Your task to perform on an android device: open app "Speedtest by Ookla" Image 0: 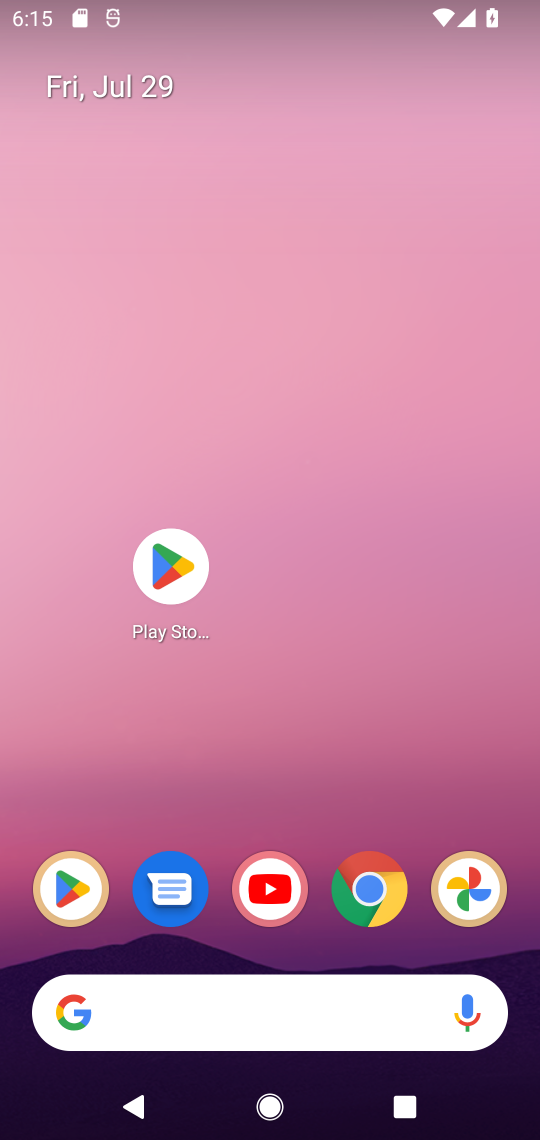
Step 0: press home button
Your task to perform on an android device: open app "Speedtest by Ookla" Image 1: 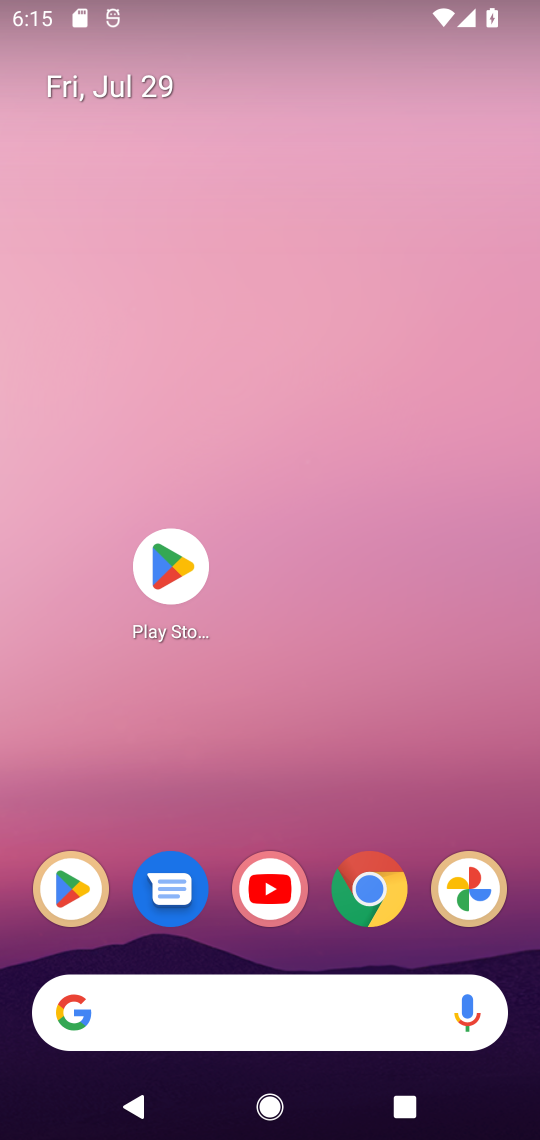
Step 1: click (171, 576)
Your task to perform on an android device: open app "Speedtest by Ookla" Image 2: 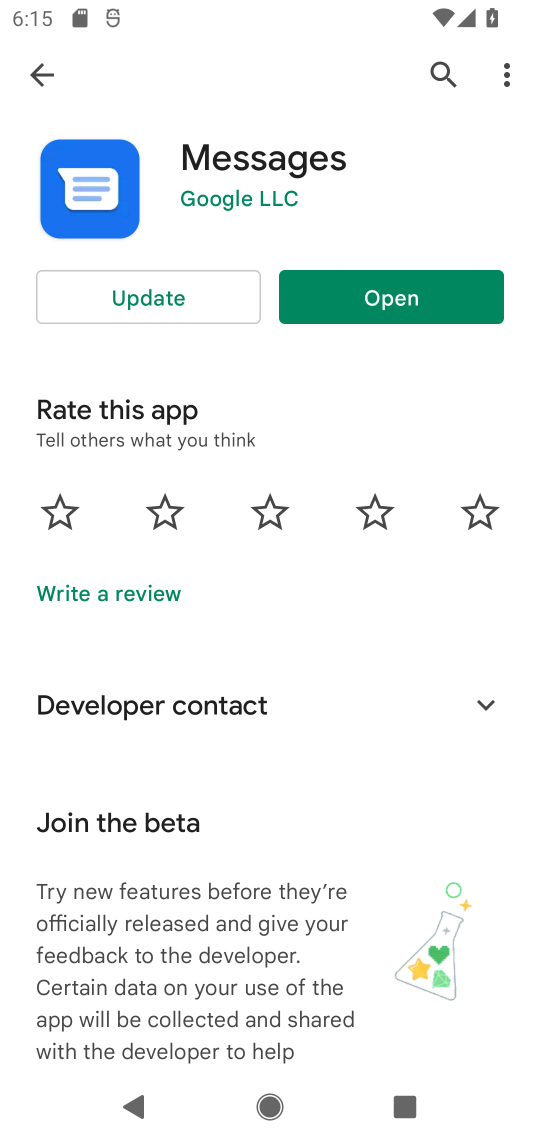
Step 2: click (444, 73)
Your task to perform on an android device: open app "Speedtest by Ookla" Image 3: 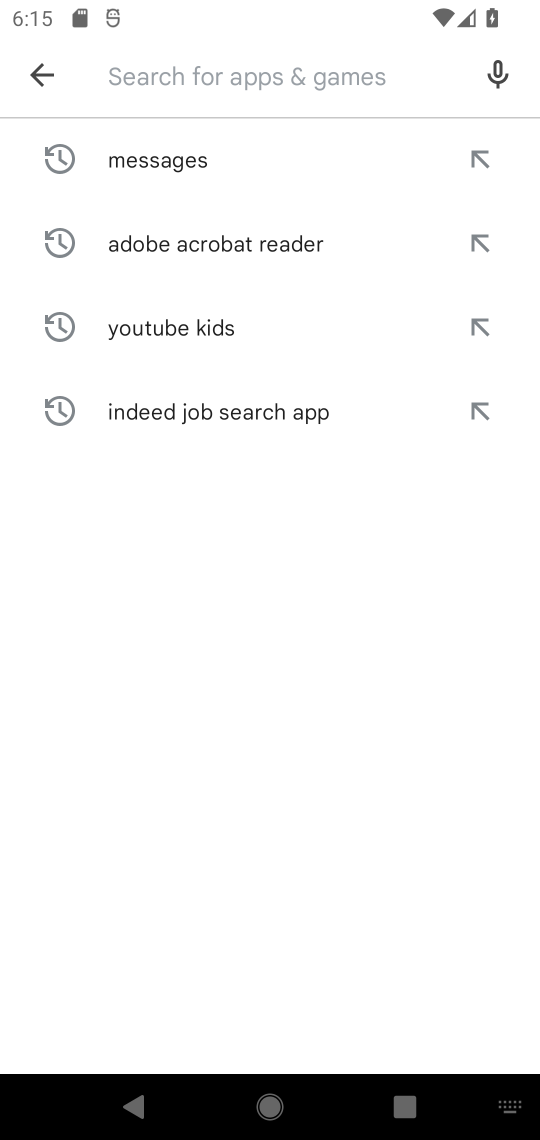
Step 3: type "Speedtest by Ookla"
Your task to perform on an android device: open app "Speedtest by Ookla" Image 4: 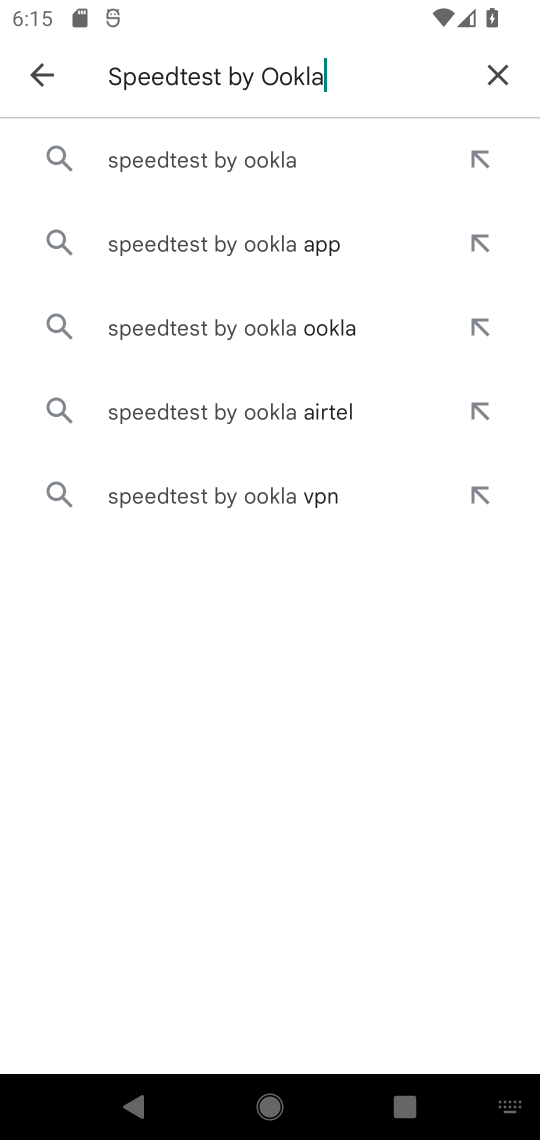
Step 4: click (263, 155)
Your task to perform on an android device: open app "Speedtest by Ookla" Image 5: 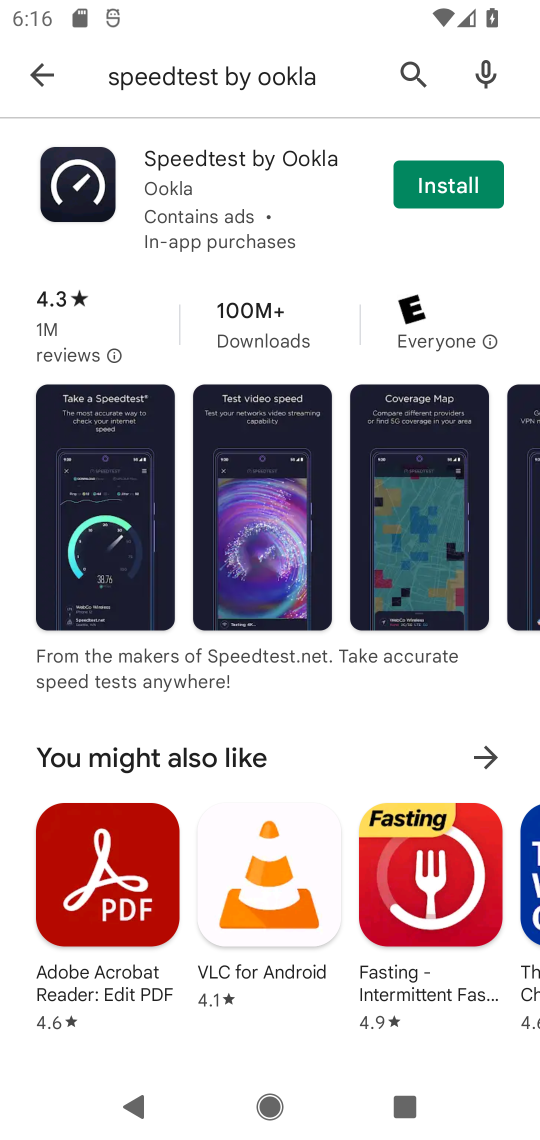
Step 5: task complete